Your task to perform on an android device: toggle pop-ups in chrome Image 0: 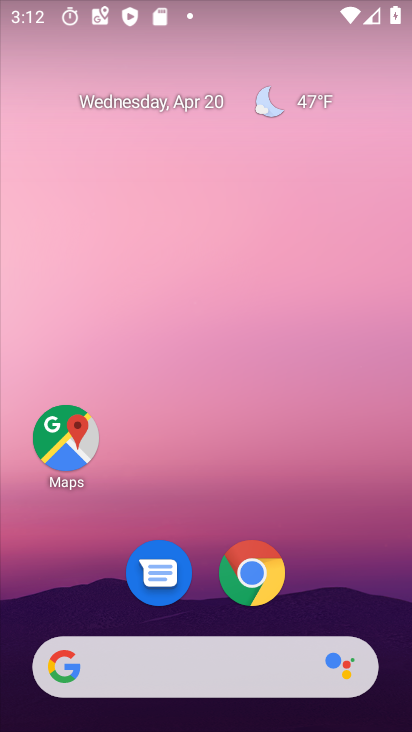
Step 0: click (252, 570)
Your task to perform on an android device: toggle pop-ups in chrome Image 1: 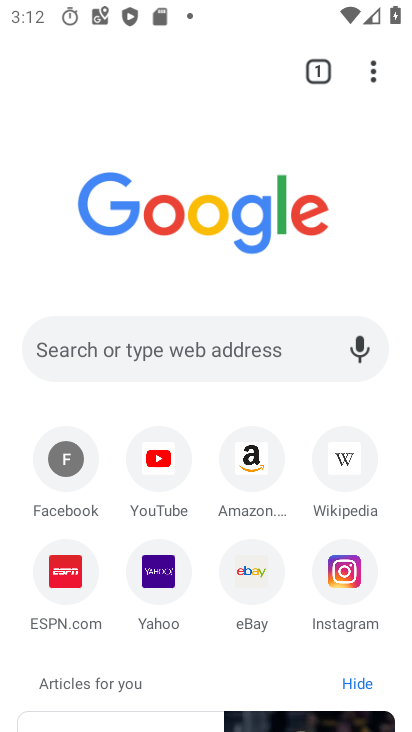
Step 1: click (371, 82)
Your task to perform on an android device: toggle pop-ups in chrome Image 2: 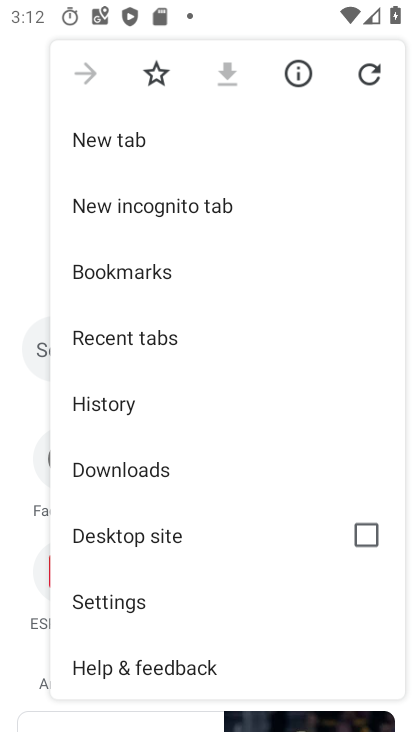
Step 2: click (118, 603)
Your task to perform on an android device: toggle pop-ups in chrome Image 3: 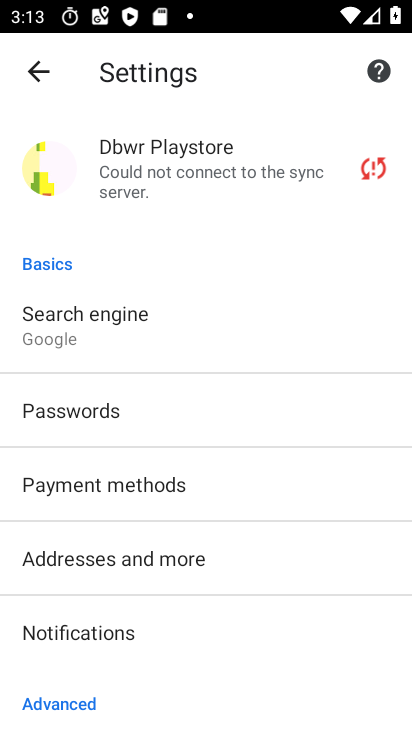
Step 3: drag from (175, 656) to (181, 272)
Your task to perform on an android device: toggle pop-ups in chrome Image 4: 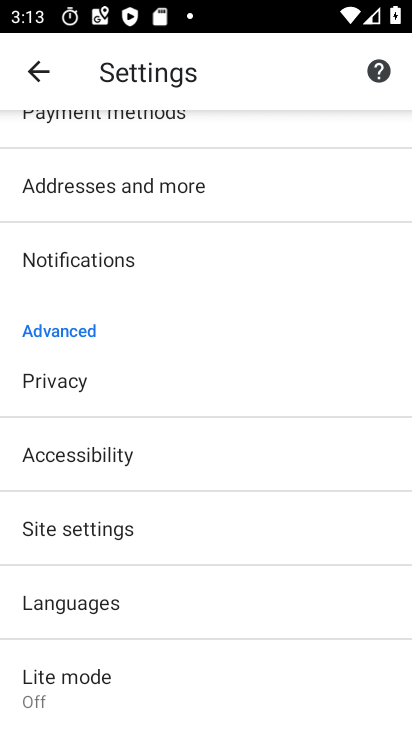
Step 4: click (87, 529)
Your task to perform on an android device: toggle pop-ups in chrome Image 5: 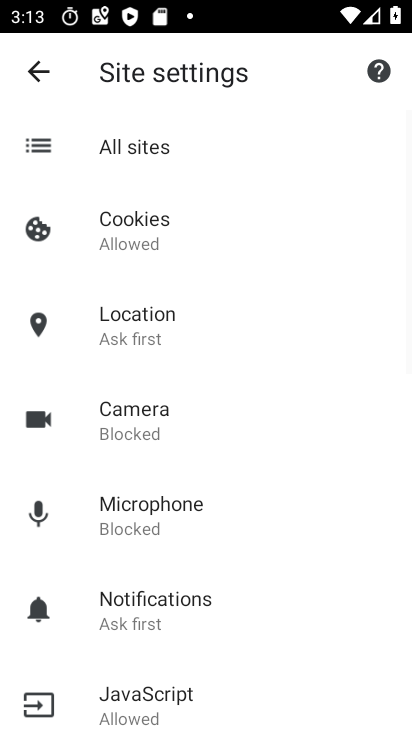
Step 5: drag from (203, 636) to (180, 296)
Your task to perform on an android device: toggle pop-ups in chrome Image 6: 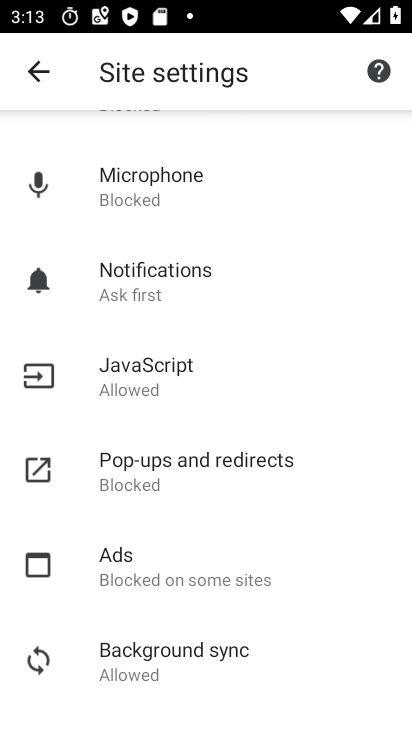
Step 6: drag from (215, 665) to (183, 353)
Your task to perform on an android device: toggle pop-ups in chrome Image 7: 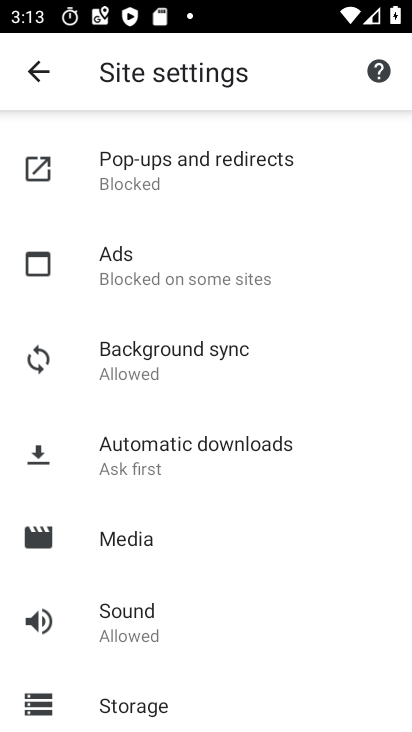
Step 7: click (153, 153)
Your task to perform on an android device: toggle pop-ups in chrome Image 8: 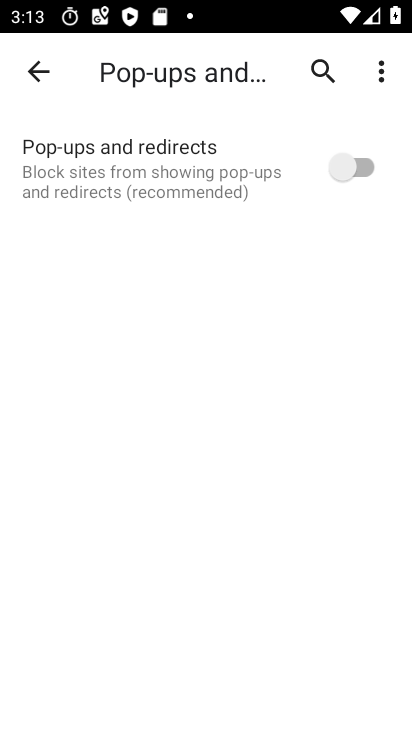
Step 8: click (360, 167)
Your task to perform on an android device: toggle pop-ups in chrome Image 9: 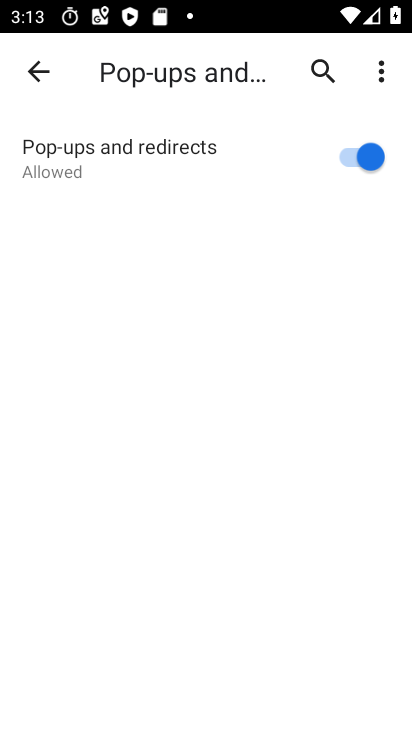
Step 9: task complete